Your task to perform on an android device: turn off translation in the chrome app Image 0: 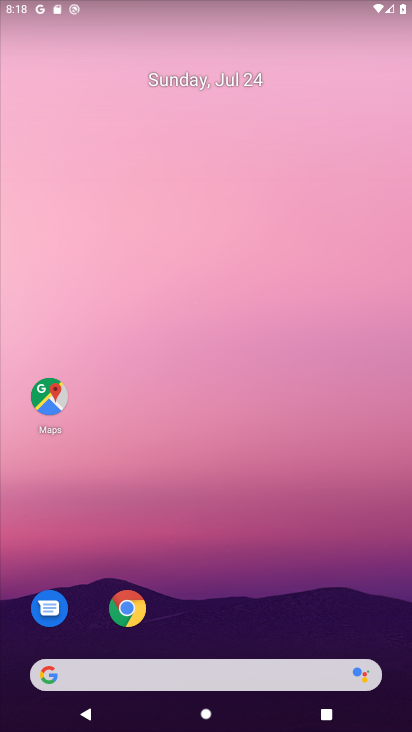
Step 0: click (137, 614)
Your task to perform on an android device: turn off translation in the chrome app Image 1: 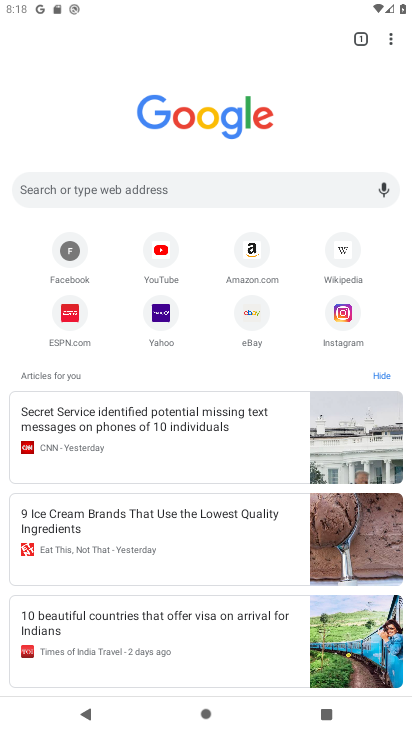
Step 1: click (402, 40)
Your task to perform on an android device: turn off translation in the chrome app Image 2: 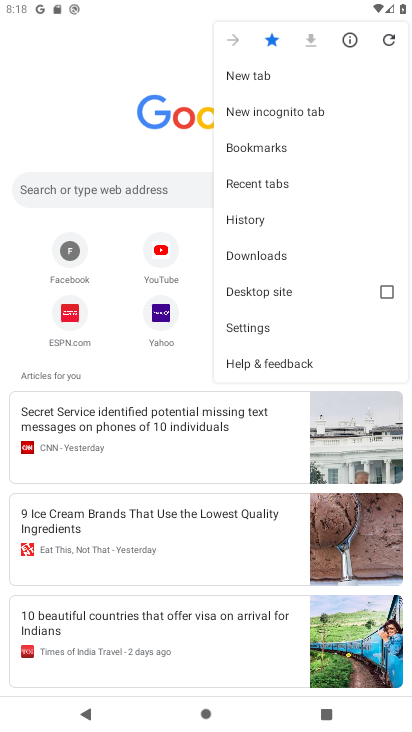
Step 2: click (247, 333)
Your task to perform on an android device: turn off translation in the chrome app Image 3: 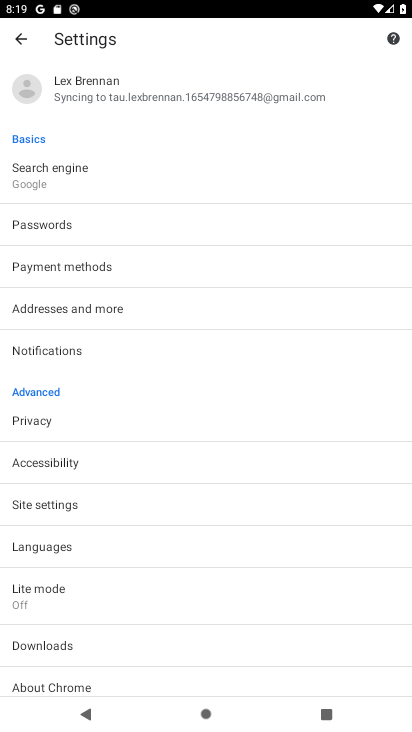
Step 3: click (87, 554)
Your task to perform on an android device: turn off translation in the chrome app Image 4: 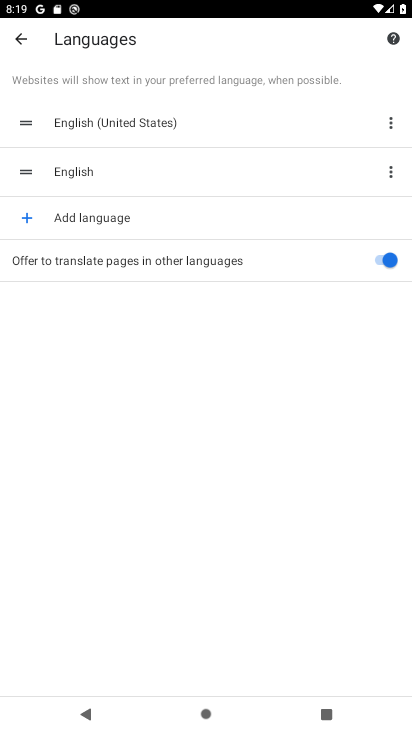
Step 4: click (390, 255)
Your task to perform on an android device: turn off translation in the chrome app Image 5: 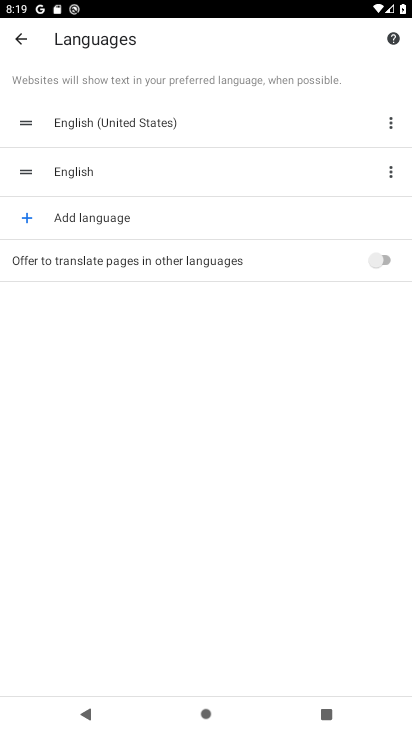
Step 5: task complete